Your task to perform on an android device: Open internet settings Image 0: 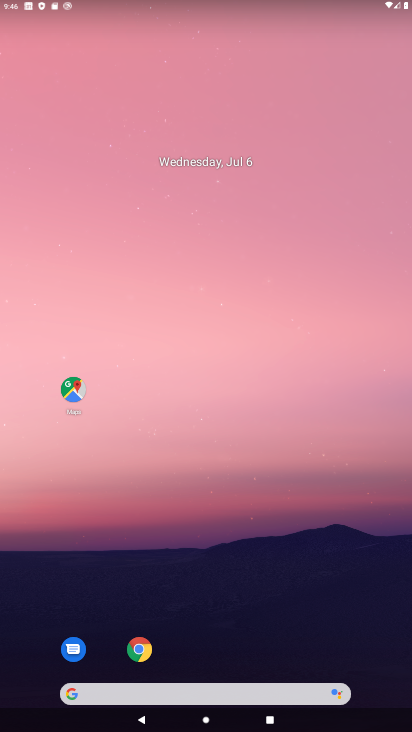
Step 0: drag from (212, 696) to (195, 121)
Your task to perform on an android device: Open internet settings Image 1: 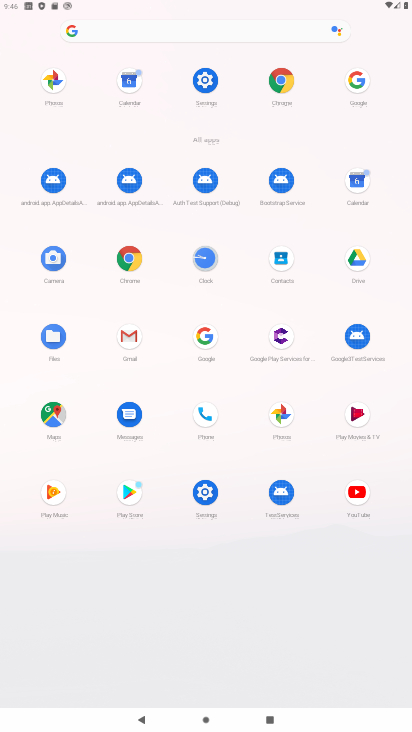
Step 1: click (199, 91)
Your task to perform on an android device: Open internet settings Image 2: 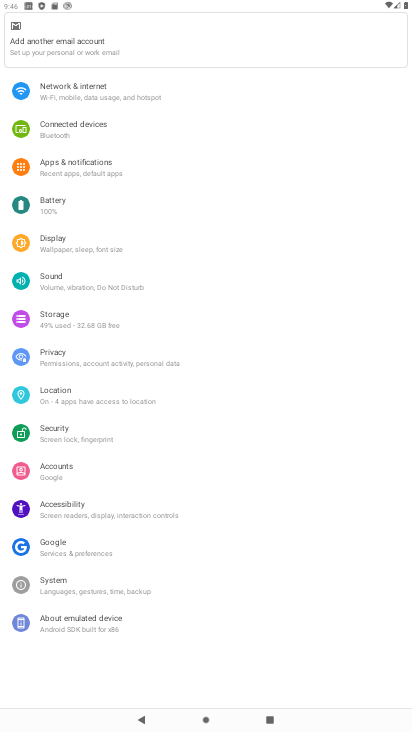
Step 2: click (147, 81)
Your task to perform on an android device: Open internet settings Image 3: 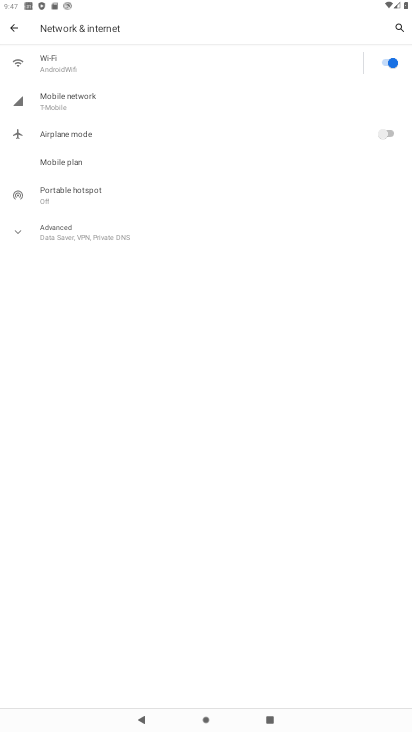
Step 3: task complete